Your task to perform on an android device: change your default location settings in chrome Image 0: 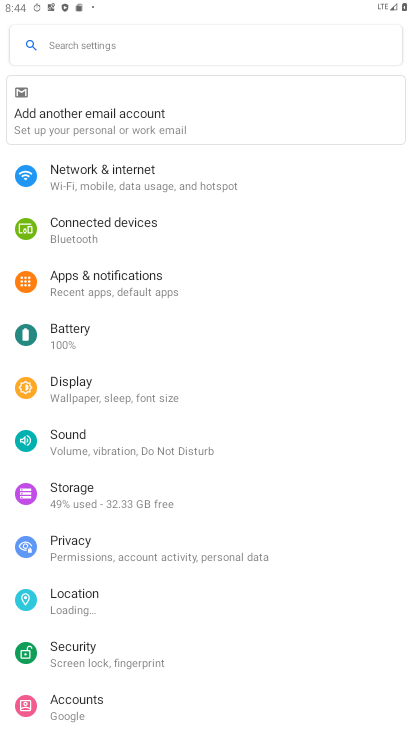
Step 0: drag from (378, 669) to (308, 166)
Your task to perform on an android device: change your default location settings in chrome Image 1: 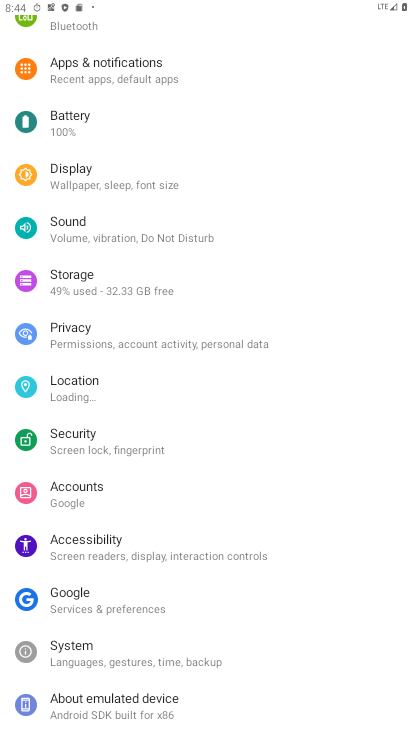
Step 1: press home button
Your task to perform on an android device: change your default location settings in chrome Image 2: 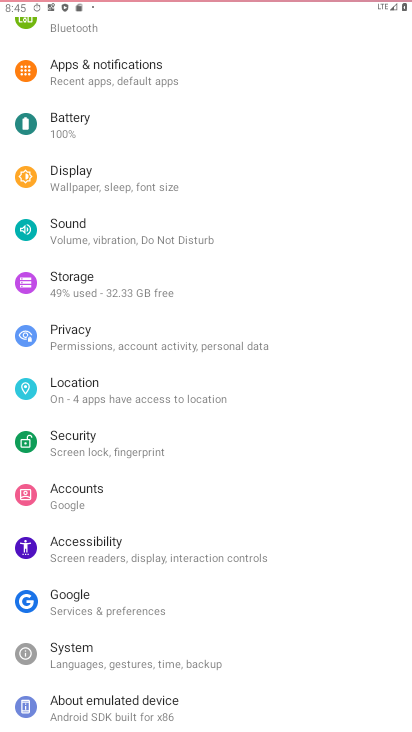
Step 2: drag from (365, 722) to (216, 110)
Your task to perform on an android device: change your default location settings in chrome Image 3: 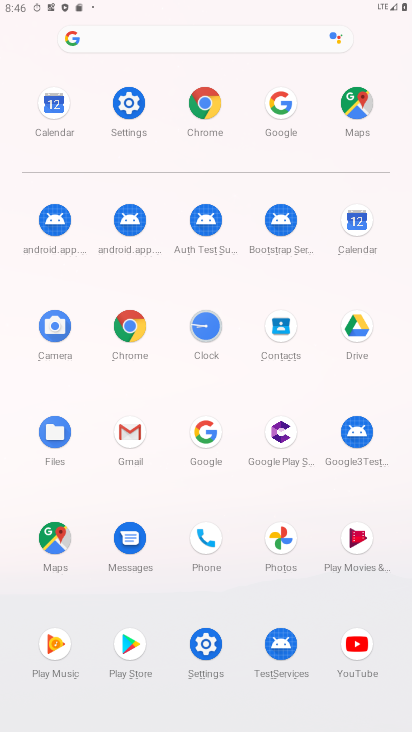
Step 3: click (135, 338)
Your task to perform on an android device: change your default location settings in chrome Image 4: 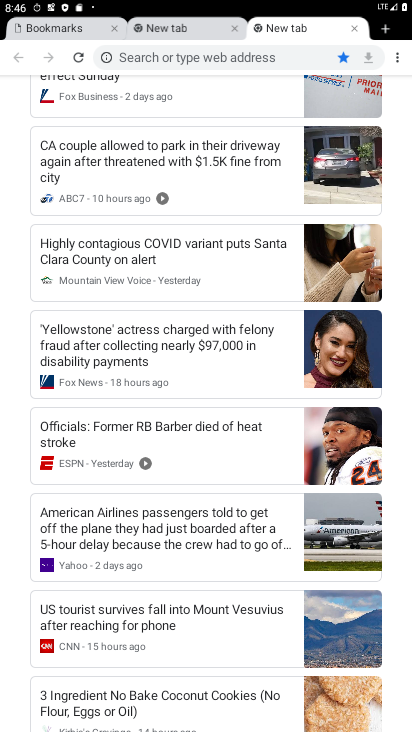
Step 4: click (396, 53)
Your task to perform on an android device: change your default location settings in chrome Image 5: 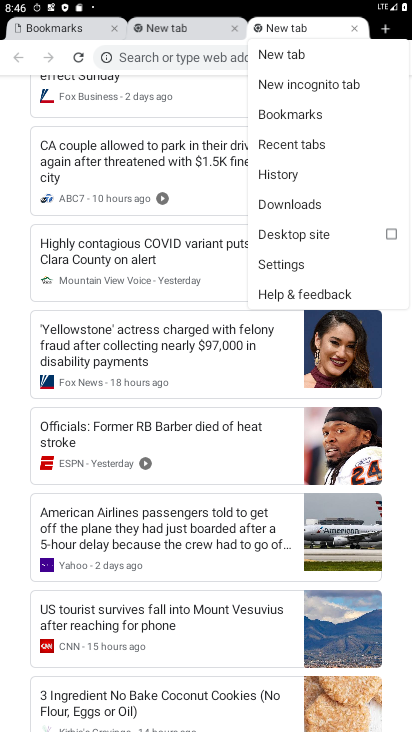
Step 5: click (280, 262)
Your task to perform on an android device: change your default location settings in chrome Image 6: 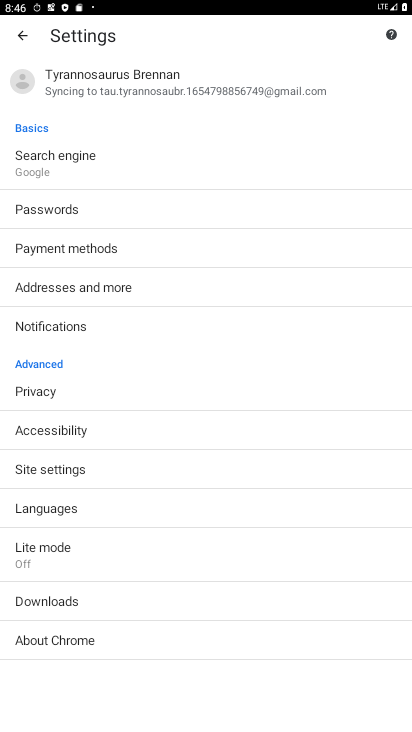
Step 6: click (93, 163)
Your task to perform on an android device: change your default location settings in chrome Image 7: 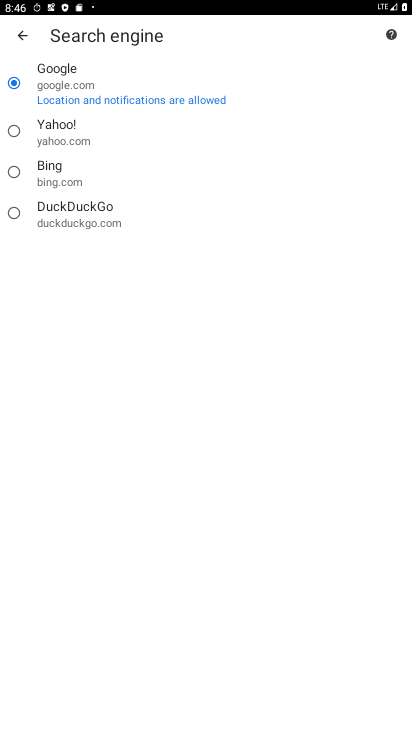
Step 7: click (93, 167)
Your task to perform on an android device: change your default location settings in chrome Image 8: 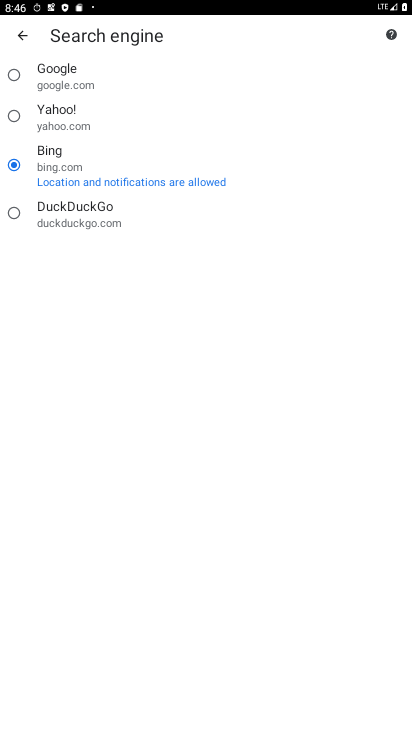
Step 8: task complete